Your task to perform on an android device: What's on my calendar today? Image 0: 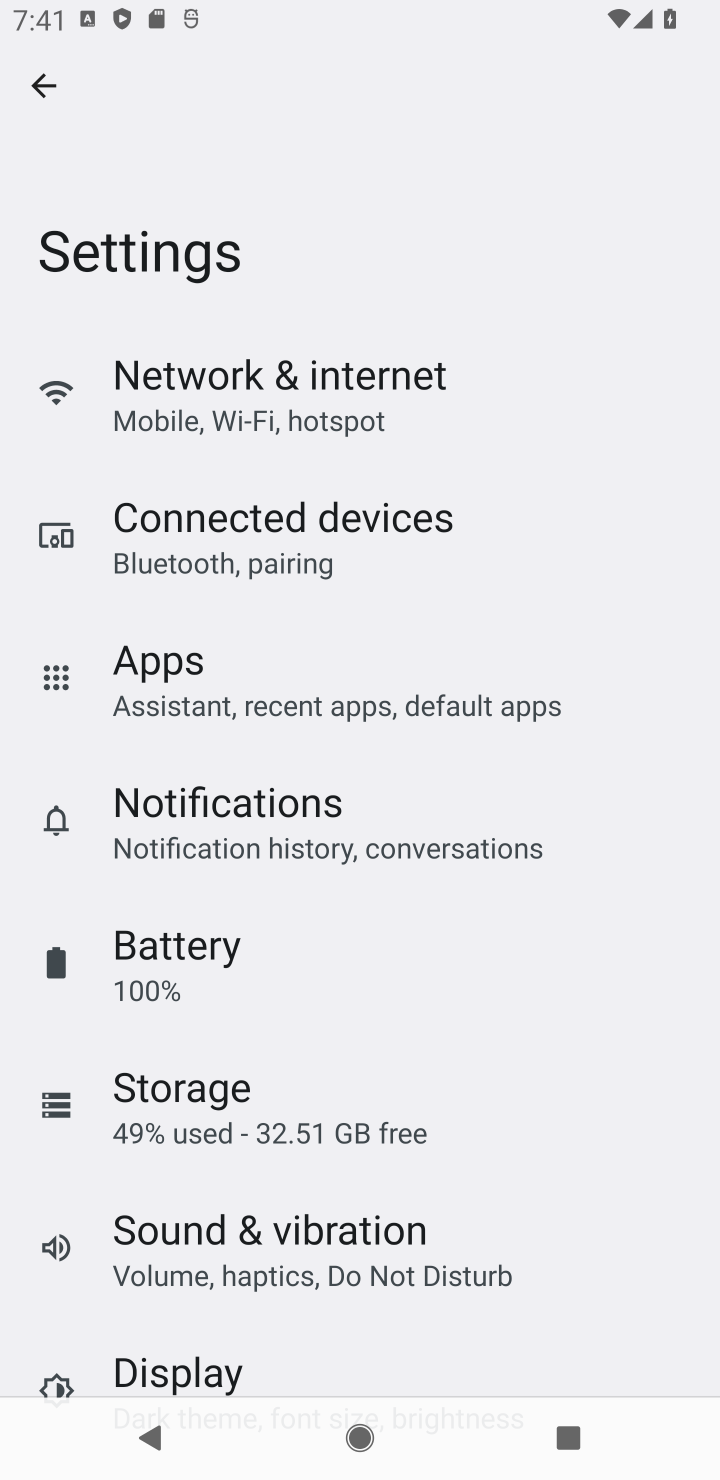
Step 0: press home button
Your task to perform on an android device: What's on my calendar today? Image 1: 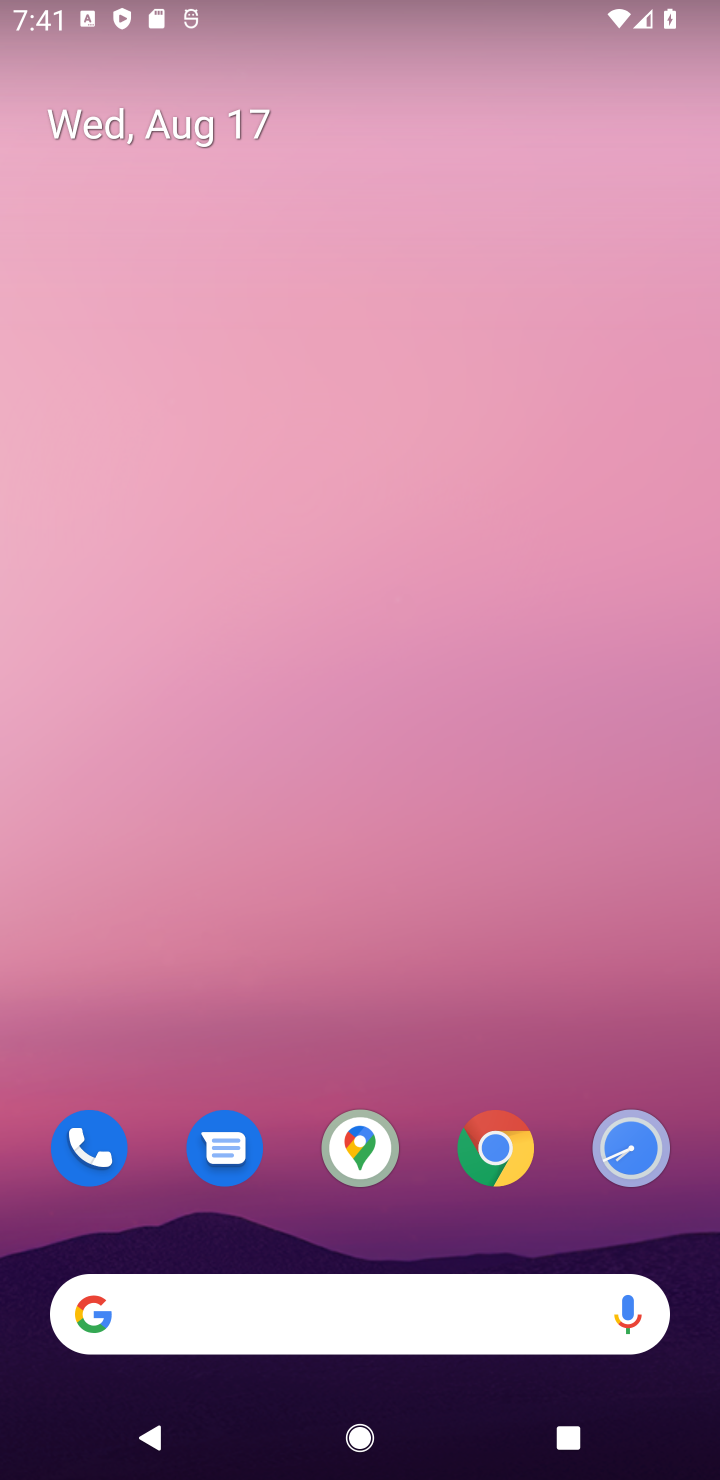
Step 1: drag from (538, 711) to (534, 202)
Your task to perform on an android device: What's on my calendar today? Image 2: 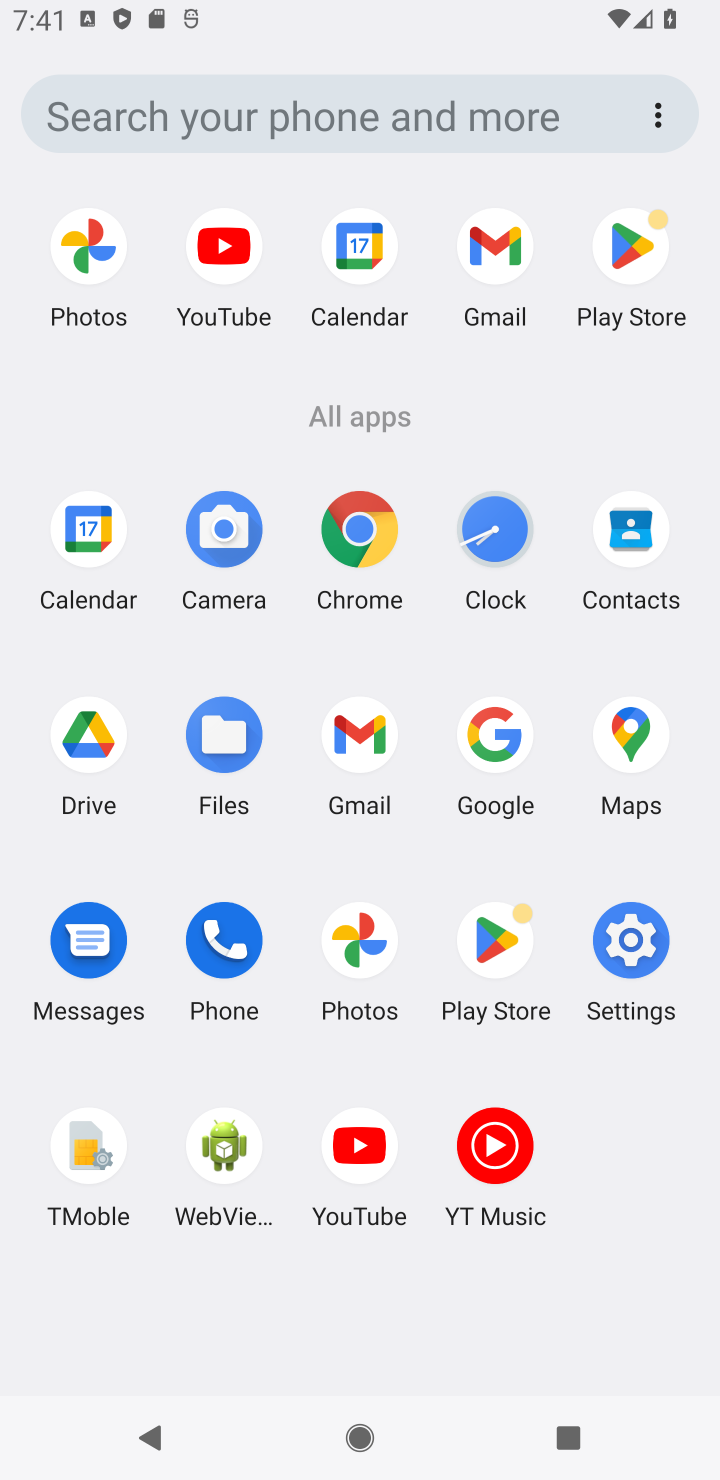
Step 2: click (90, 528)
Your task to perform on an android device: What's on my calendar today? Image 3: 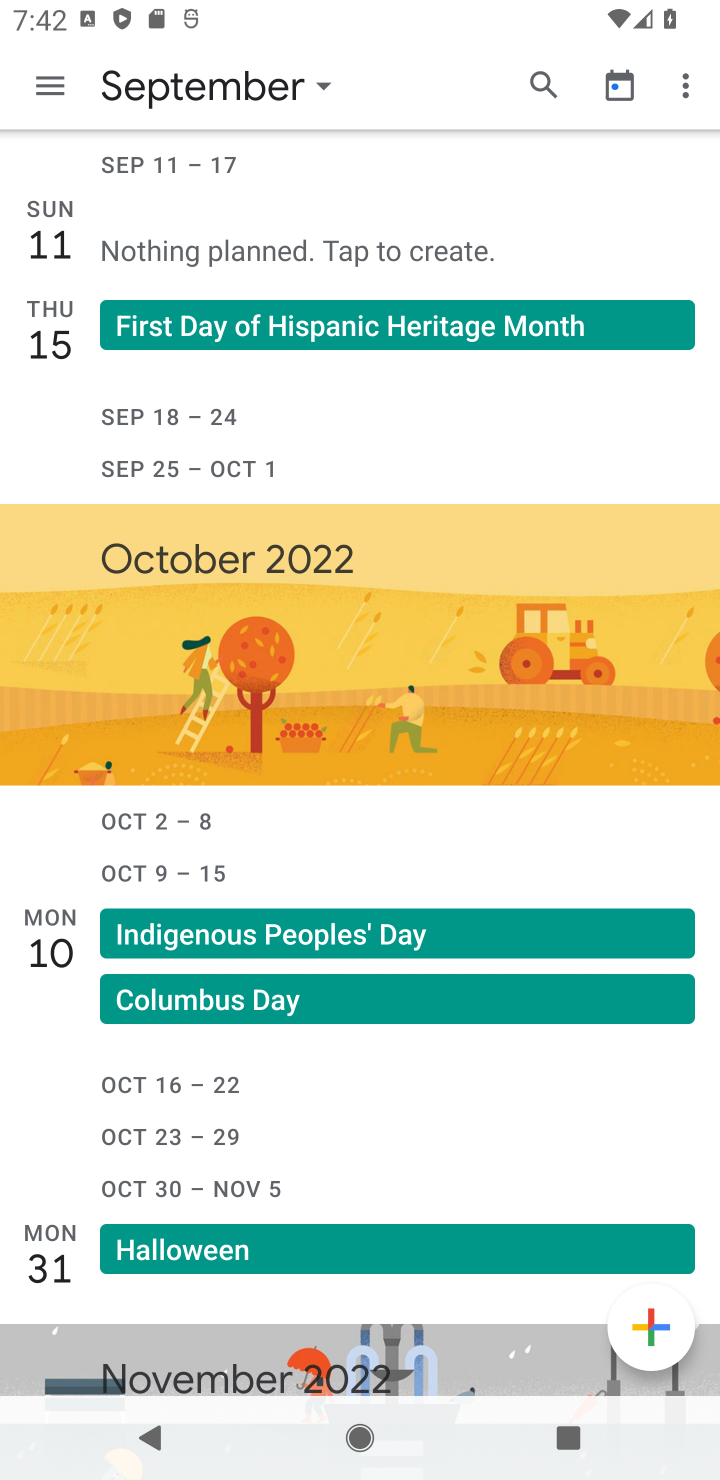
Step 3: click (57, 87)
Your task to perform on an android device: What's on my calendar today? Image 4: 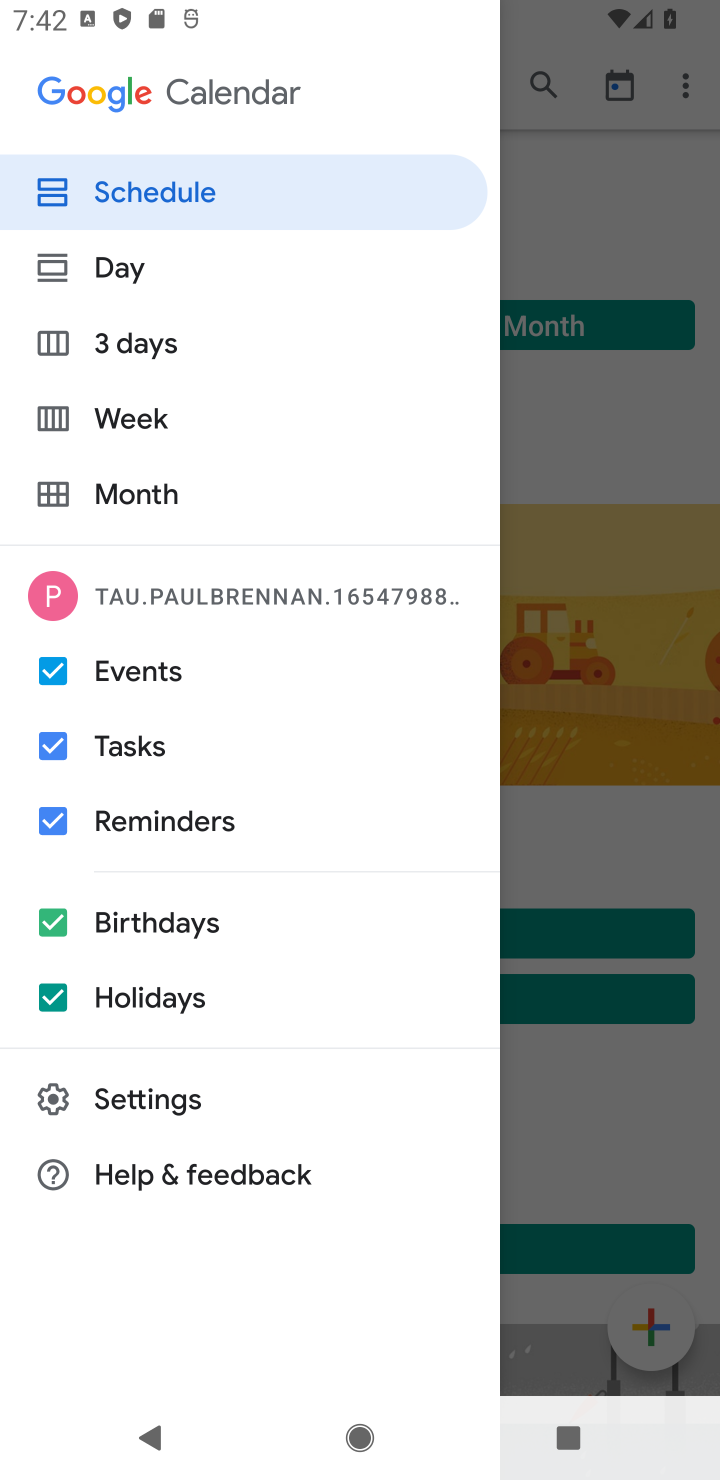
Step 4: click (121, 273)
Your task to perform on an android device: What's on my calendar today? Image 5: 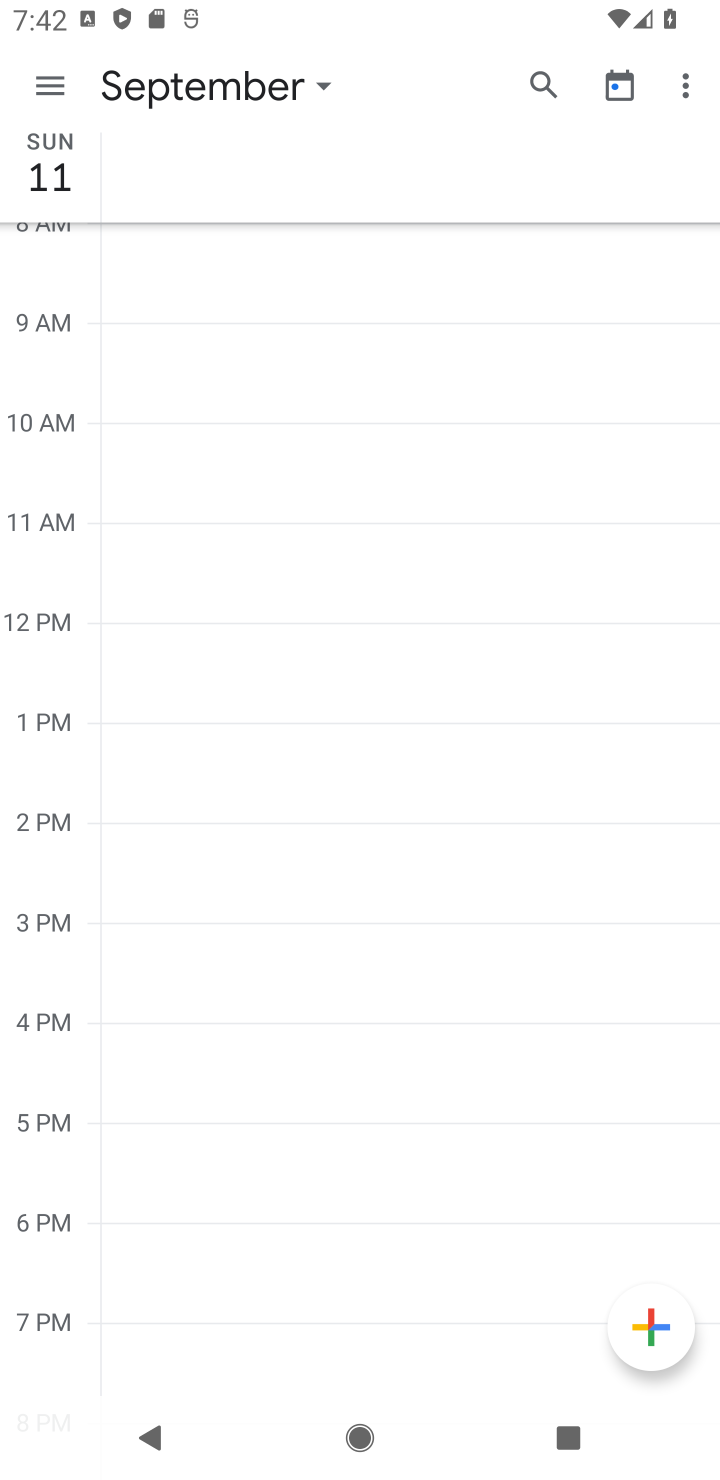
Step 5: click (317, 72)
Your task to perform on an android device: What's on my calendar today? Image 6: 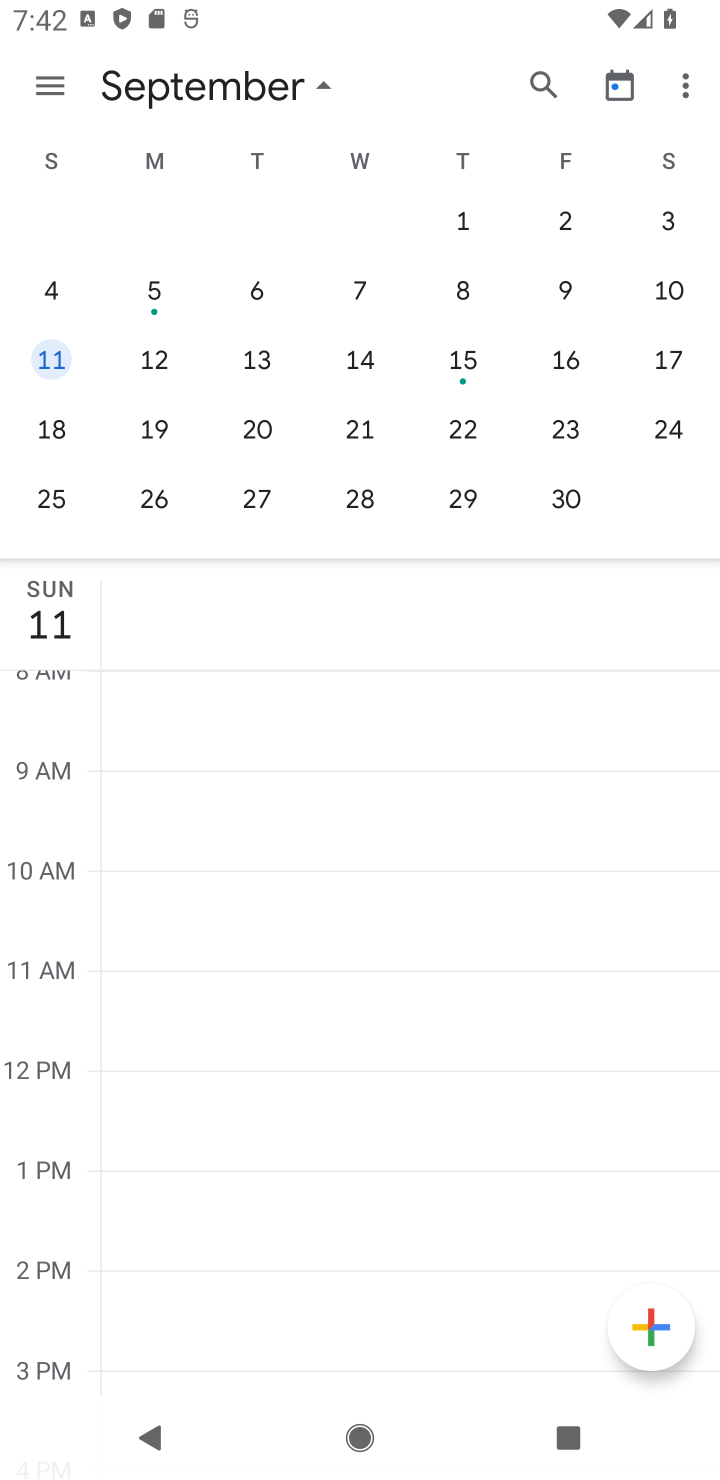
Step 6: drag from (34, 418) to (646, 422)
Your task to perform on an android device: What's on my calendar today? Image 7: 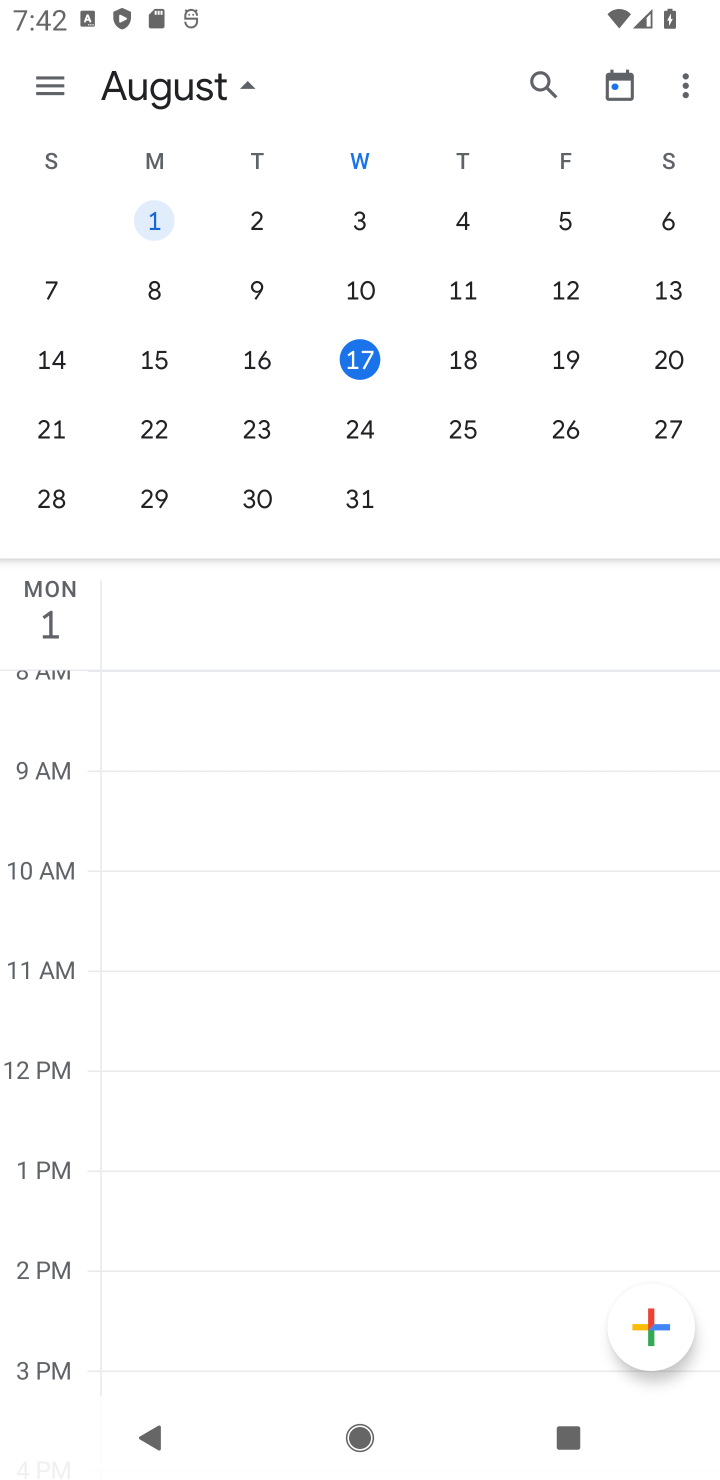
Step 7: click (359, 351)
Your task to perform on an android device: What's on my calendar today? Image 8: 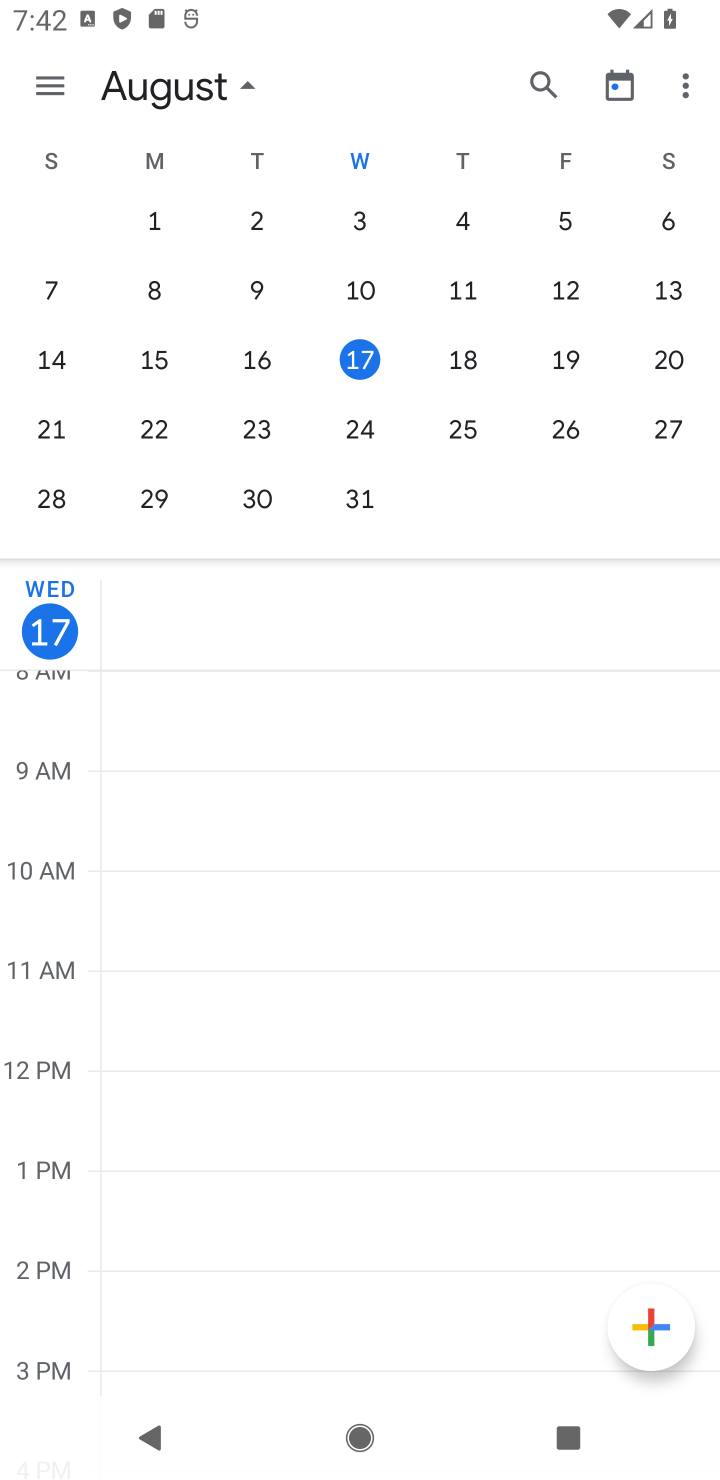
Step 8: task complete